Your task to perform on an android device: Open the Play Movies app and select the watchlist tab. Image 0: 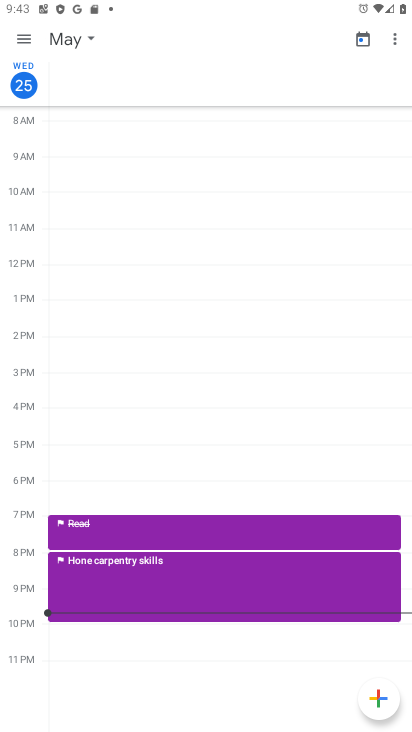
Step 0: press home button
Your task to perform on an android device: Open the Play Movies app and select the watchlist tab. Image 1: 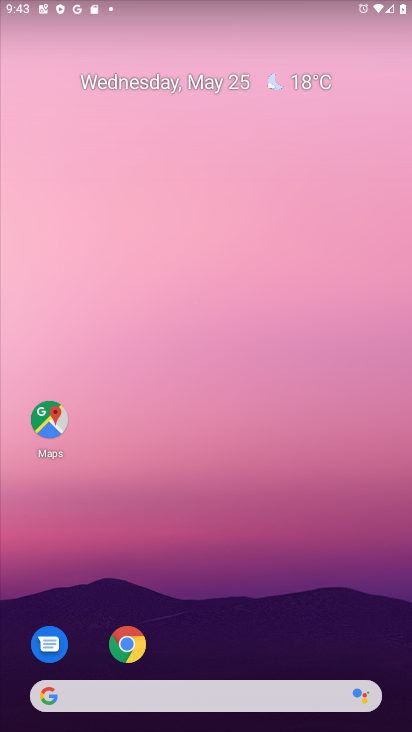
Step 1: drag from (204, 674) to (243, 8)
Your task to perform on an android device: Open the Play Movies app and select the watchlist tab. Image 2: 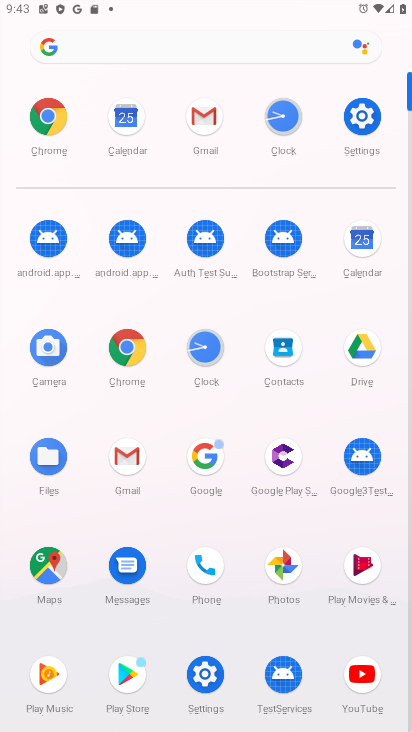
Step 2: click (359, 556)
Your task to perform on an android device: Open the Play Movies app and select the watchlist tab. Image 3: 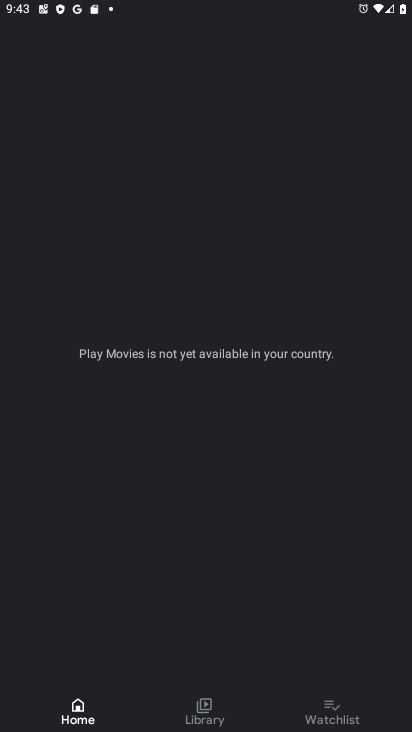
Step 3: click (329, 703)
Your task to perform on an android device: Open the Play Movies app and select the watchlist tab. Image 4: 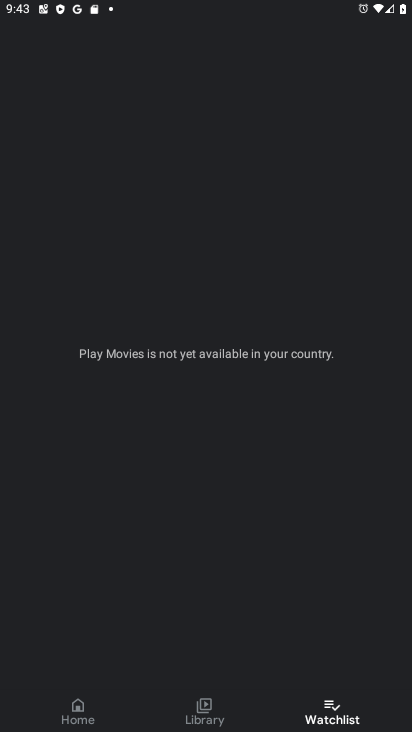
Step 4: task complete